Your task to perform on an android device: Show me productivity apps on the Play Store Image 0: 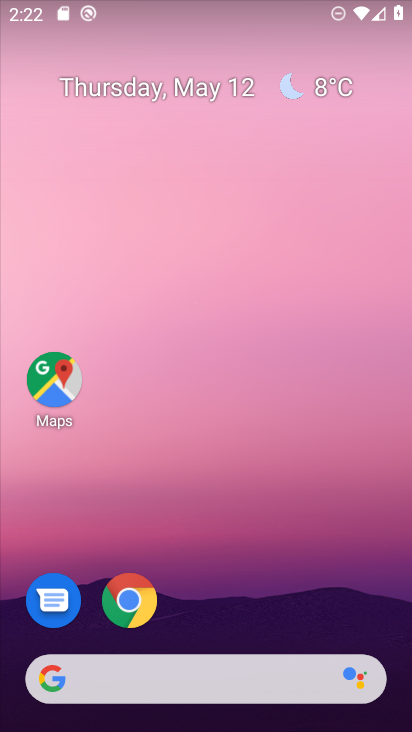
Step 0: drag from (201, 727) to (215, 226)
Your task to perform on an android device: Show me productivity apps on the Play Store Image 1: 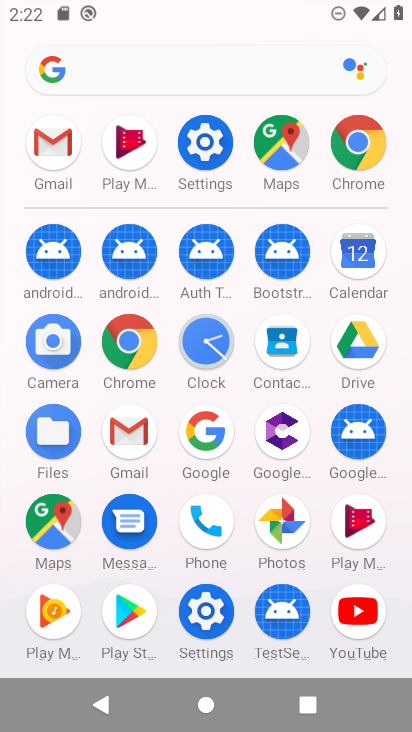
Step 1: drag from (247, 636) to (246, 288)
Your task to perform on an android device: Show me productivity apps on the Play Store Image 2: 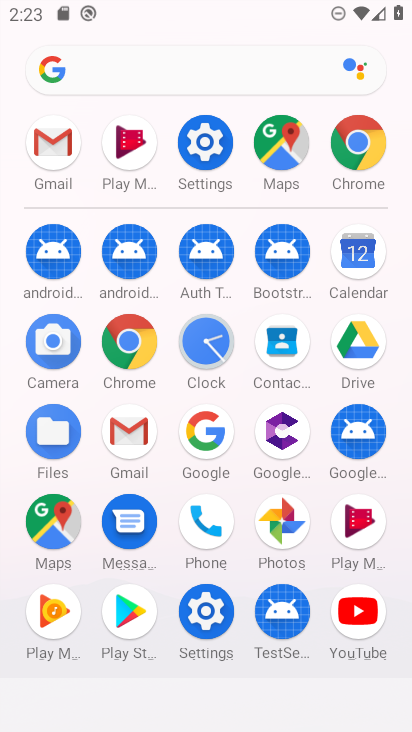
Step 2: click (119, 612)
Your task to perform on an android device: Show me productivity apps on the Play Store Image 3: 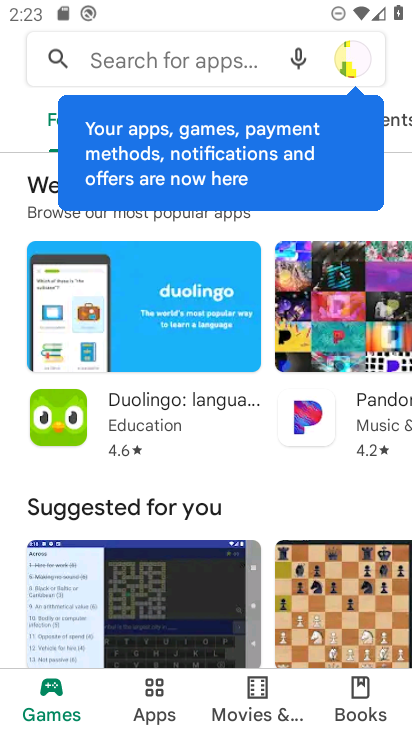
Step 3: click (151, 696)
Your task to perform on an android device: Show me productivity apps on the Play Store Image 4: 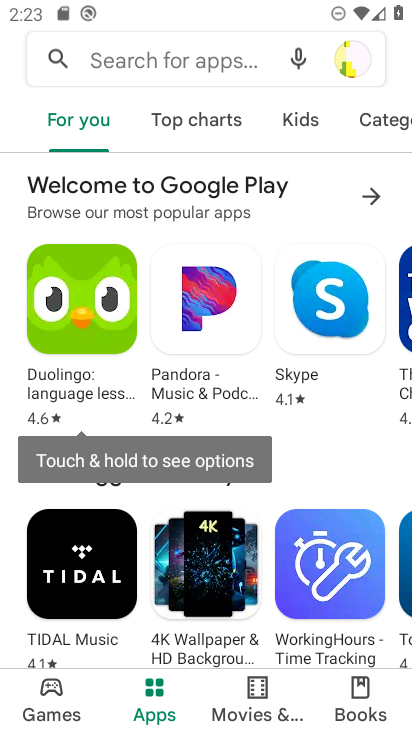
Step 4: drag from (330, 124) to (36, 110)
Your task to perform on an android device: Show me productivity apps on the Play Store Image 5: 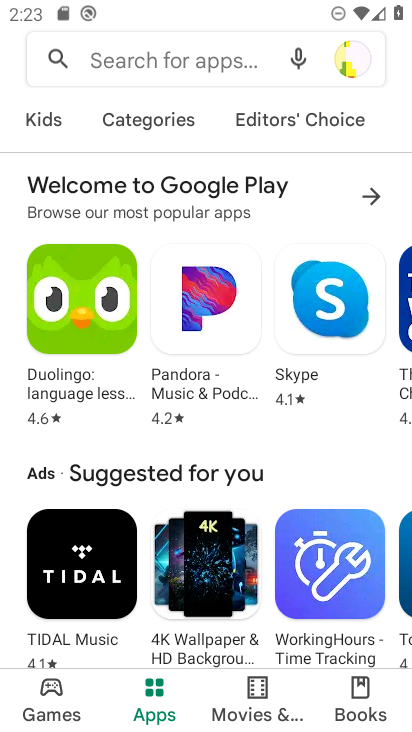
Step 5: click (153, 118)
Your task to perform on an android device: Show me productivity apps on the Play Store Image 6: 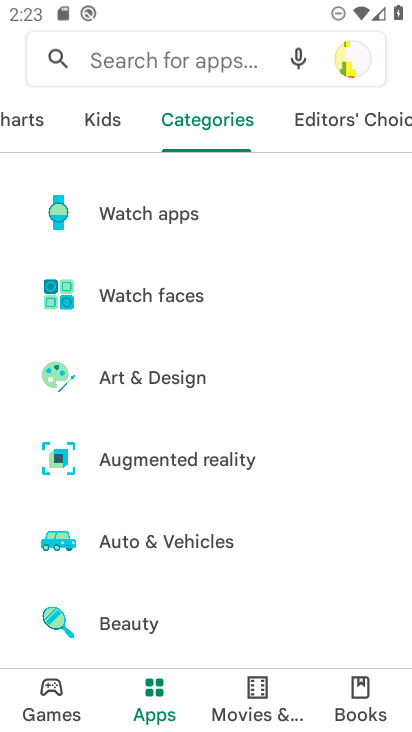
Step 6: drag from (197, 596) to (197, 230)
Your task to perform on an android device: Show me productivity apps on the Play Store Image 7: 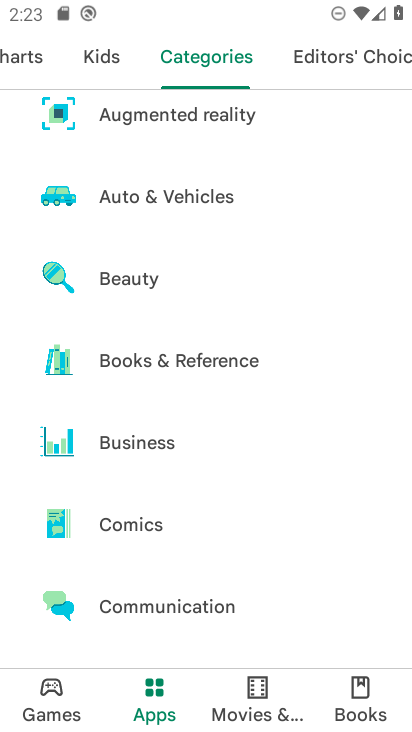
Step 7: drag from (124, 620) to (133, 259)
Your task to perform on an android device: Show me productivity apps on the Play Store Image 8: 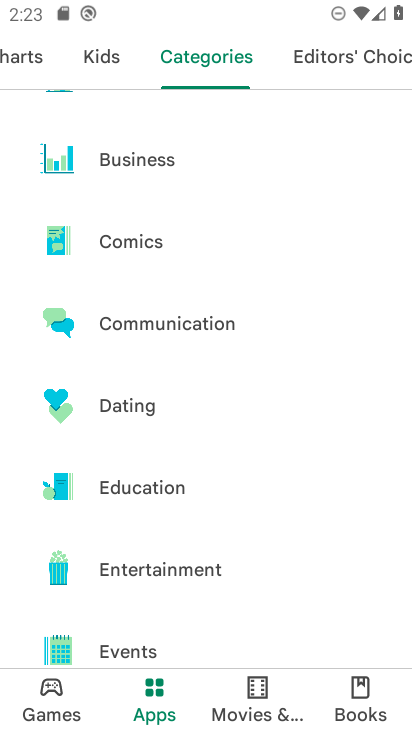
Step 8: drag from (151, 633) to (155, 84)
Your task to perform on an android device: Show me productivity apps on the Play Store Image 9: 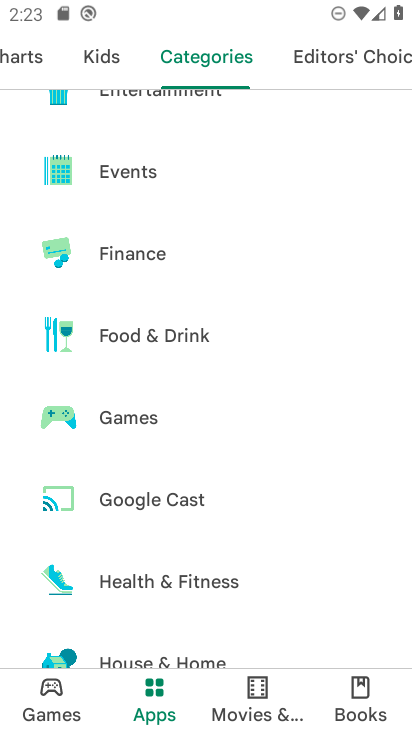
Step 9: drag from (160, 645) to (164, 75)
Your task to perform on an android device: Show me productivity apps on the Play Store Image 10: 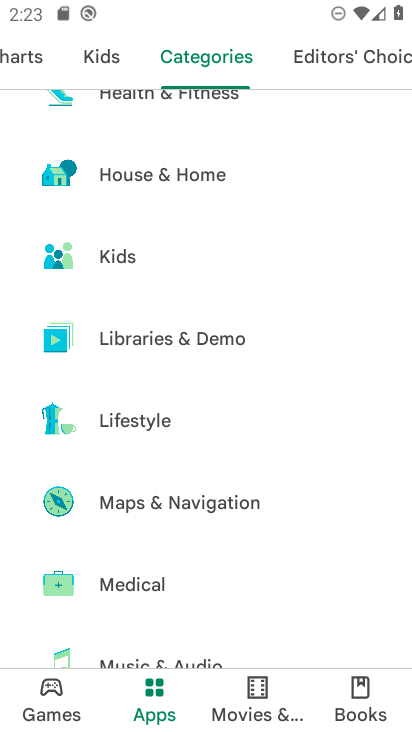
Step 10: drag from (148, 633) to (143, 84)
Your task to perform on an android device: Show me productivity apps on the Play Store Image 11: 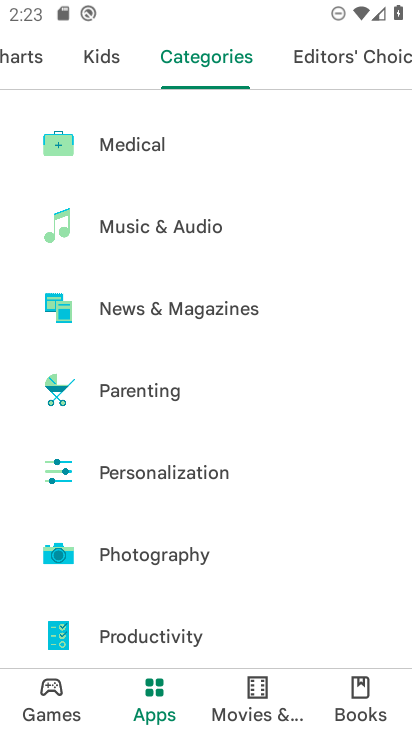
Step 11: click (161, 636)
Your task to perform on an android device: Show me productivity apps on the Play Store Image 12: 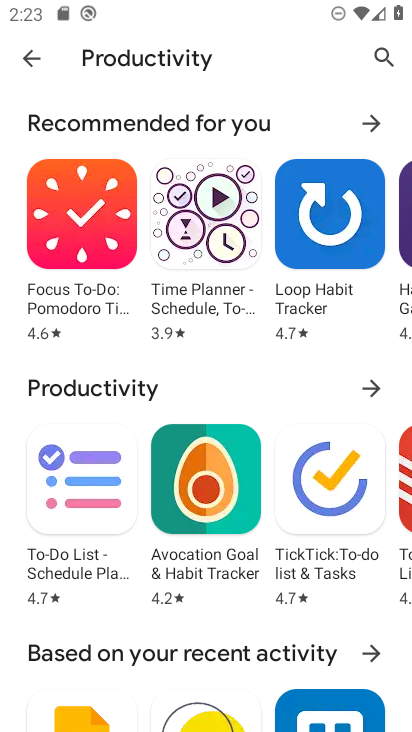
Step 12: task complete